Your task to perform on an android device: turn off notifications settings in the gmail app Image 0: 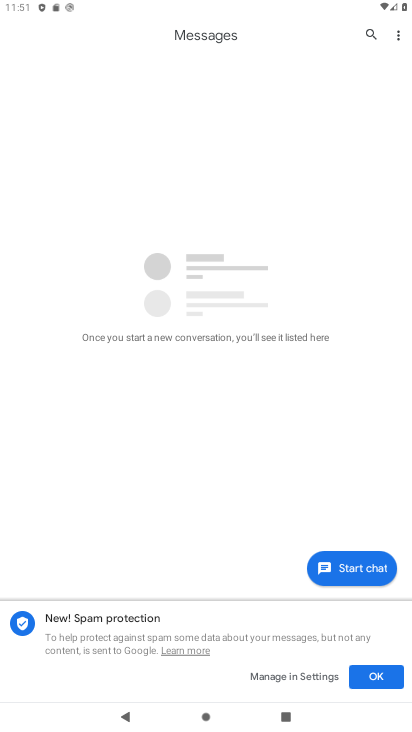
Step 0: press home button
Your task to perform on an android device: turn off notifications settings in the gmail app Image 1: 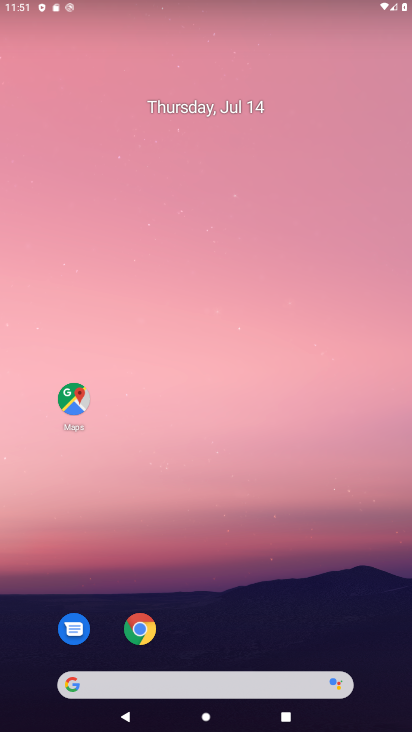
Step 1: drag from (220, 478) to (197, 2)
Your task to perform on an android device: turn off notifications settings in the gmail app Image 2: 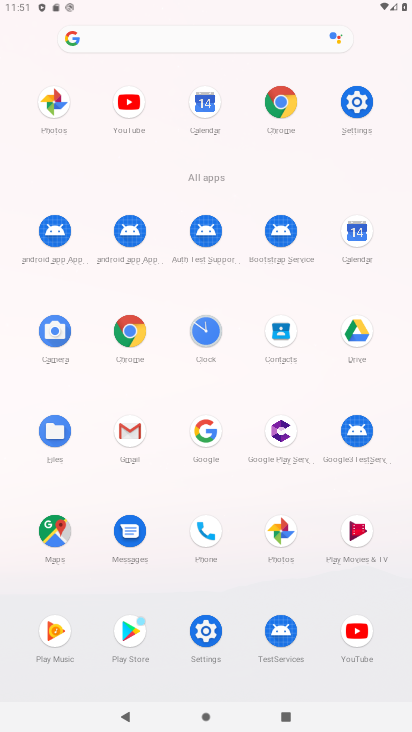
Step 2: click (124, 430)
Your task to perform on an android device: turn off notifications settings in the gmail app Image 3: 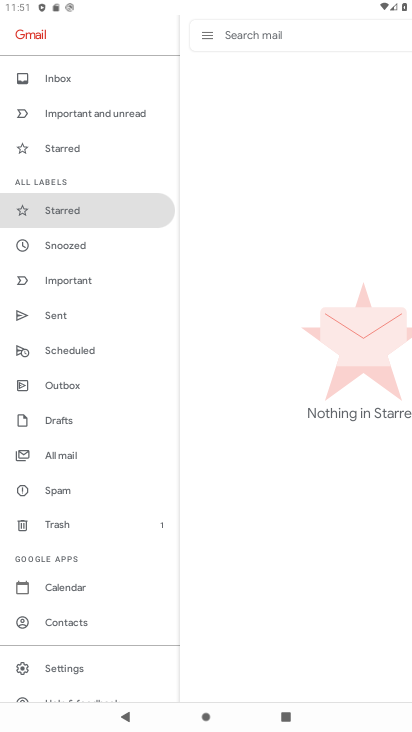
Step 3: click (66, 666)
Your task to perform on an android device: turn off notifications settings in the gmail app Image 4: 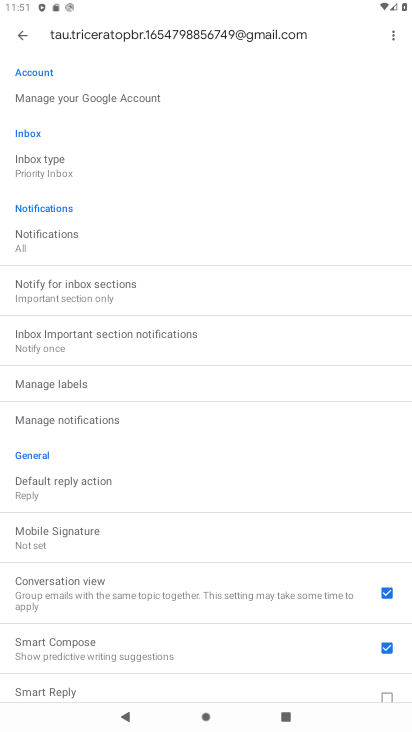
Step 4: click (86, 421)
Your task to perform on an android device: turn off notifications settings in the gmail app Image 5: 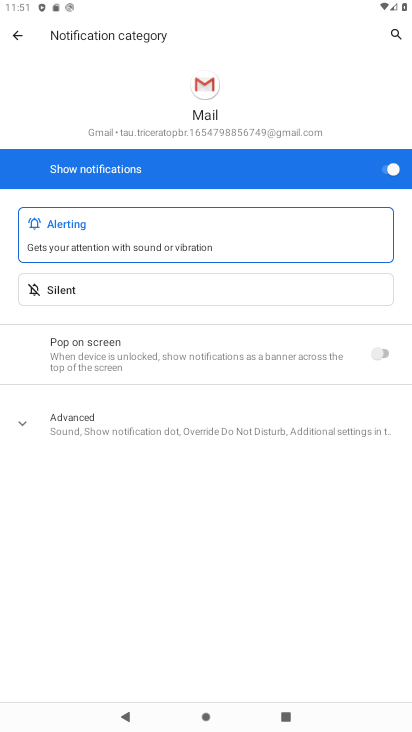
Step 5: click (387, 170)
Your task to perform on an android device: turn off notifications settings in the gmail app Image 6: 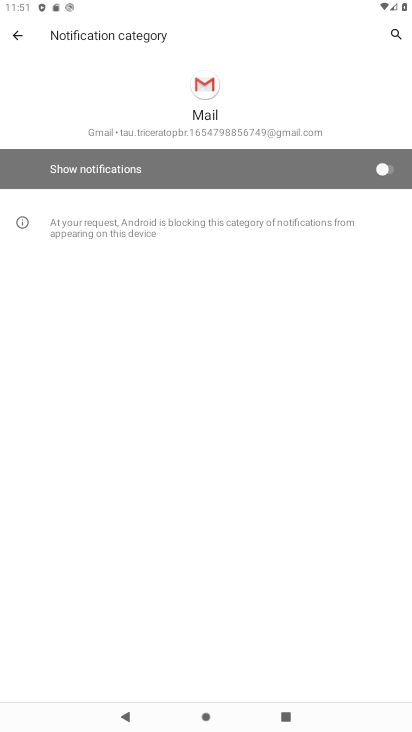
Step 6: task complete